Your task to perform on an android device: Open network settings Image 0: 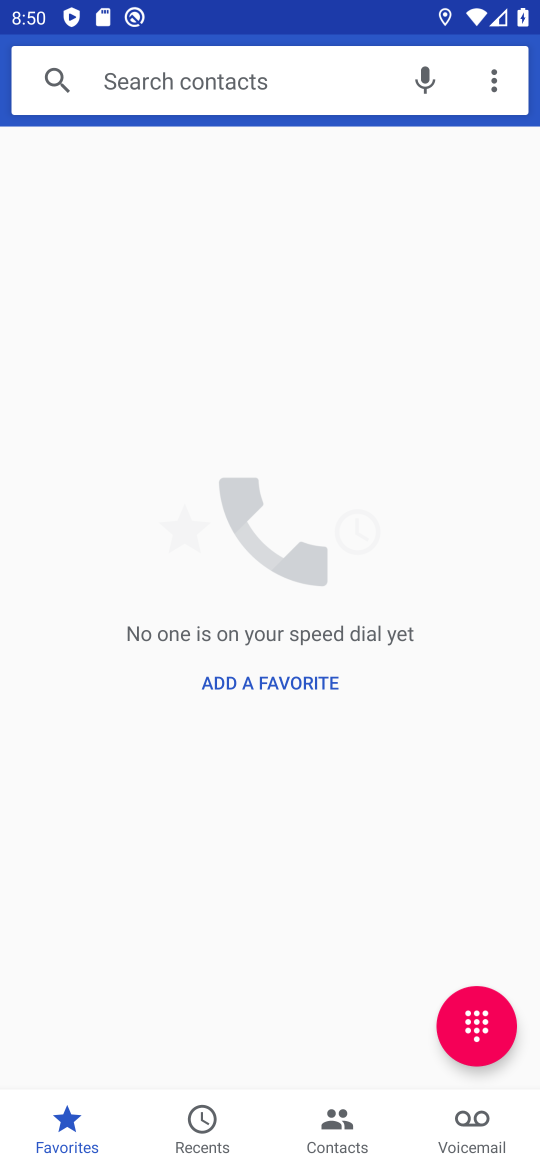
Step 0: press home button
Your task to perform on an android device: Open network settings Image 1: 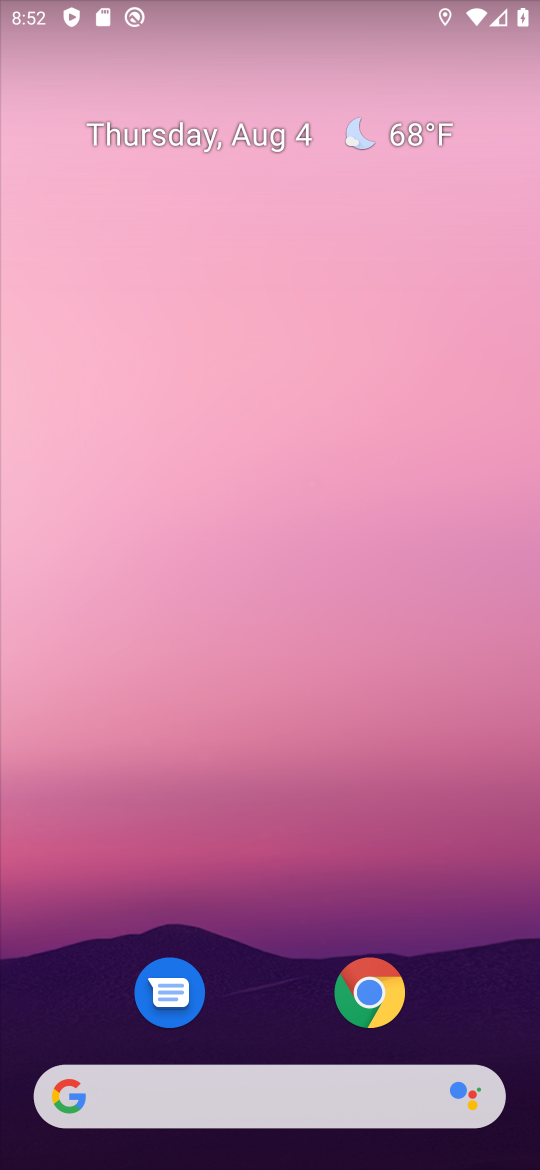
Step 1: drag from (0, 0) to (438, 228)
Your task to perform on an android device: Open network settings Image 2: 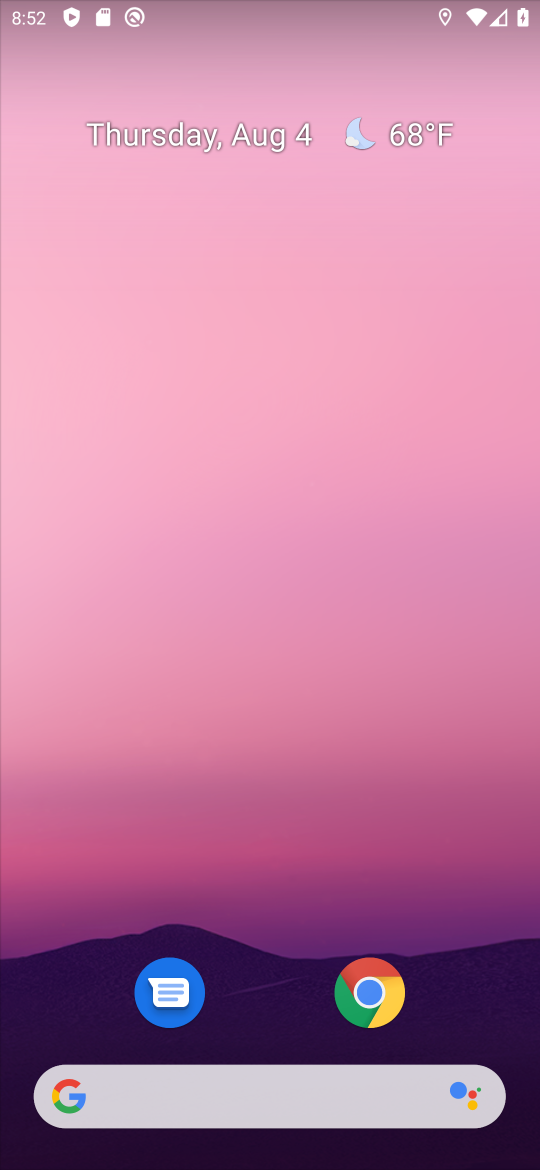
Step 2: drag from (94, 807) to (367, 23)
Your task to perform on an android device: Open network settings Image 3: 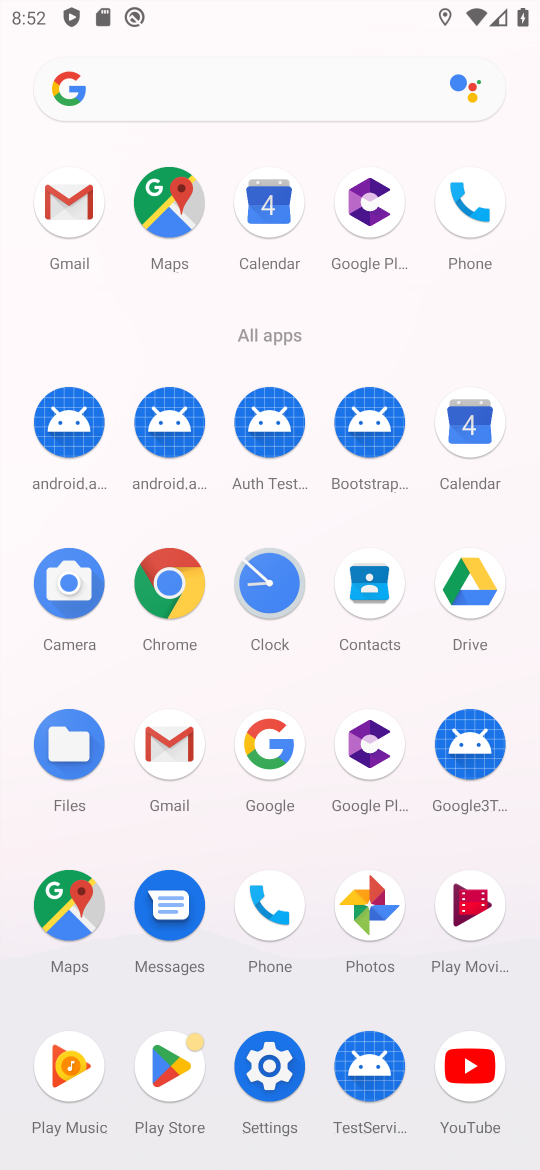
Step 3: click (265, 1086)
Your task to perform on an android device: Open network settings Image 4: 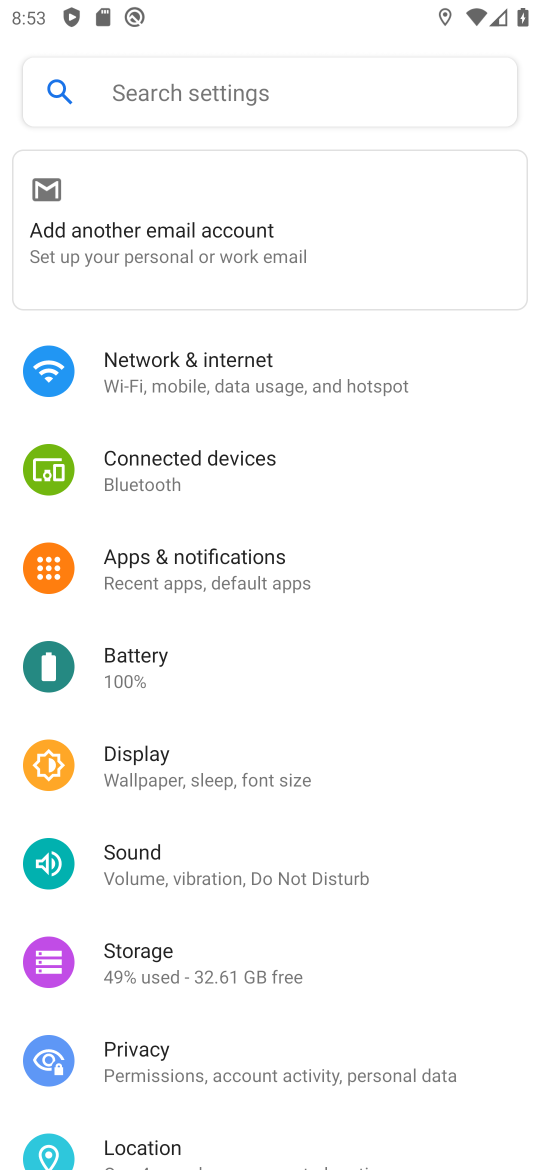
Step 4: click (256, 365)
Your task to perform on an android device: Open network settings Image 5: 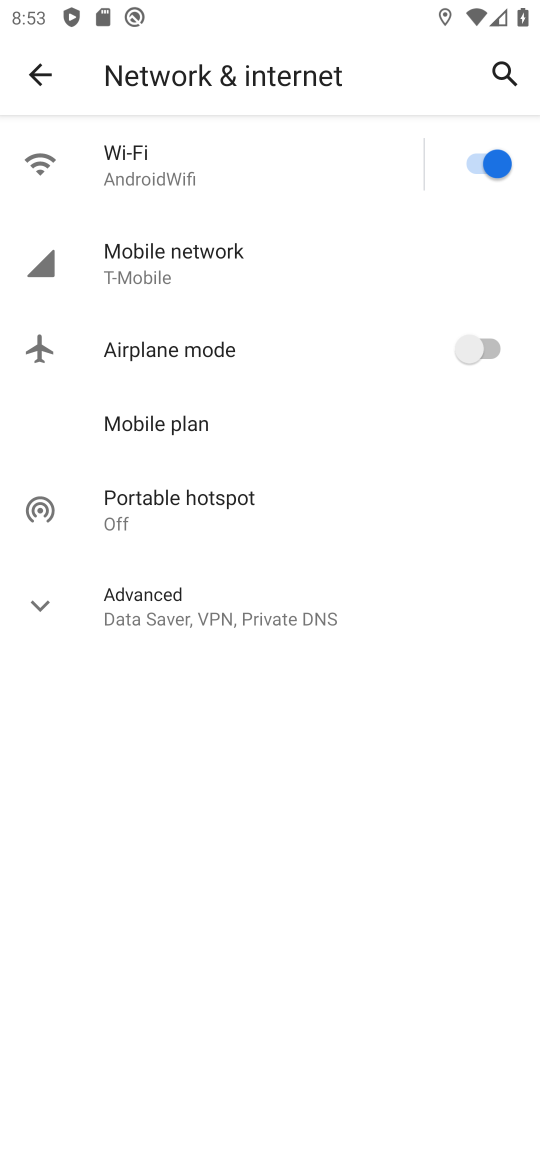
Step 5: click (278, 258)
Your task to perform on an android device: Open network settings Image 6: 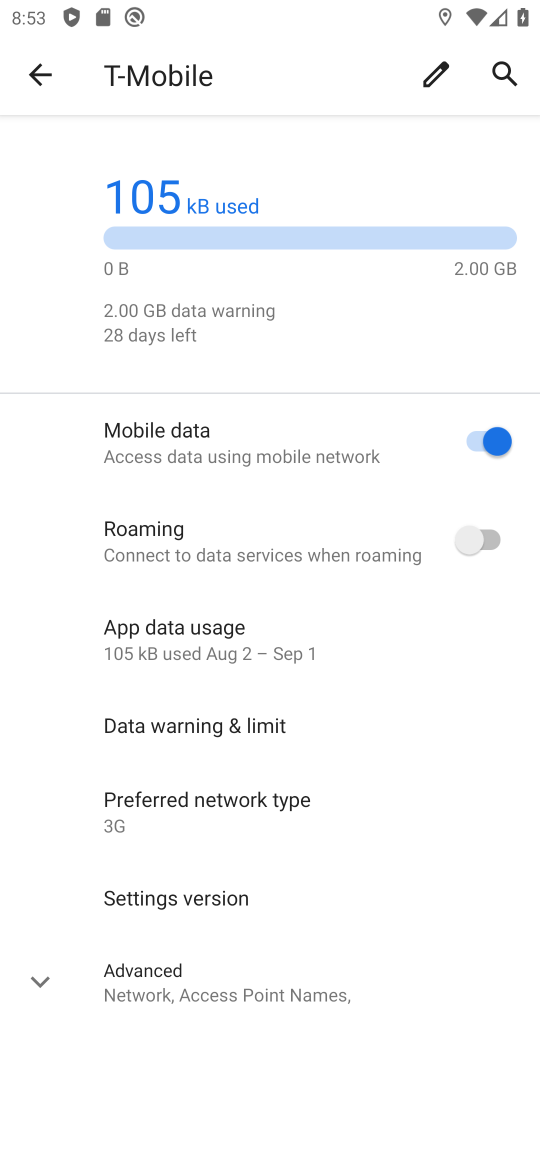
Step 6: task complete